Your task to perform on an android device: Open calendar and show me the first week of next month Image 0: 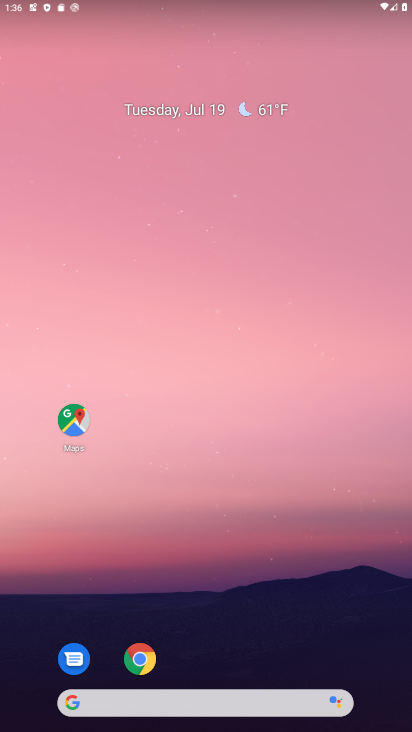
Step 0: drag from (257, 626) to (203, 158)
Your task to perform on an android device: Open calendar and show me the first week of next month Image 1: 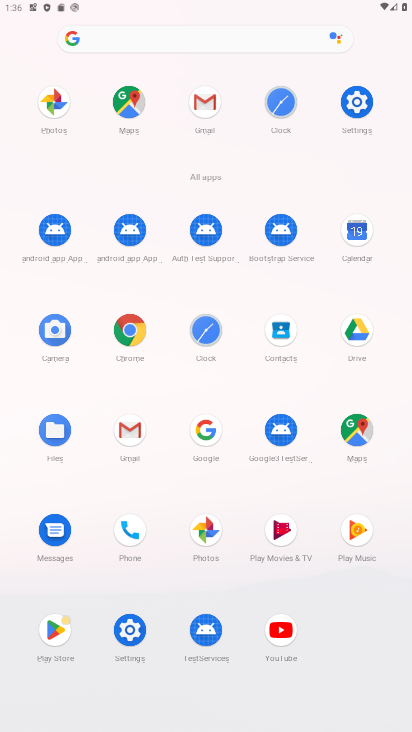
Step 1: click (350, 238)
Your task to perform on an android device: Open calendar and show me the first week of next month Image 2: 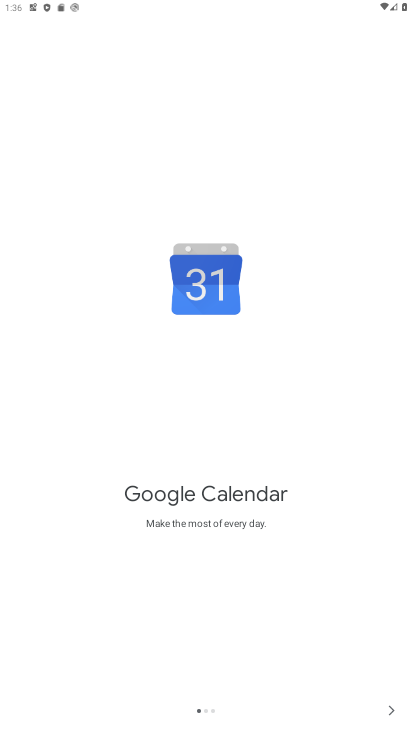
Step 2: click (389, 711)
Your task to perform on an android device: Open calendar and show me the first week of next month Image 3: 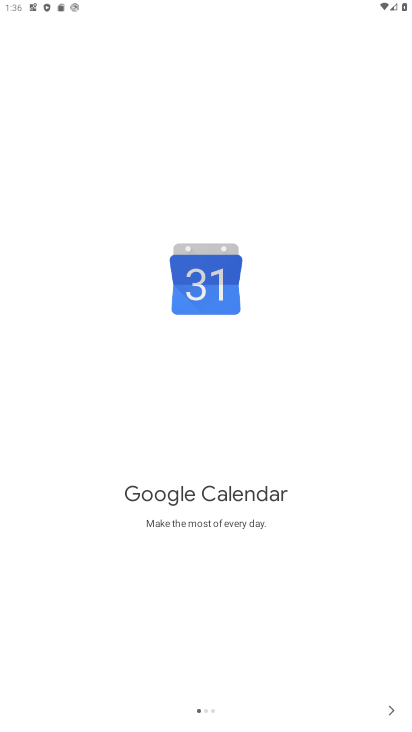
Step 3: click (389, 711)
Your task to perform on an android device: Open calendar and show me the first week of next month Image 4: 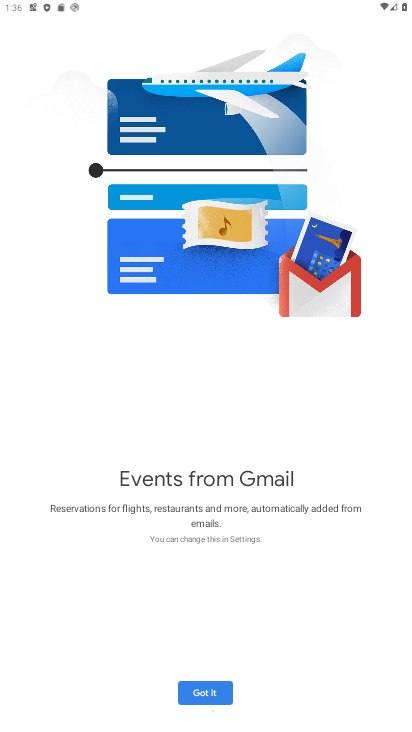
Step 4: click (389, 711)
Your task to perform on an android device: Open calendar and show me the first week of next month Image 5: 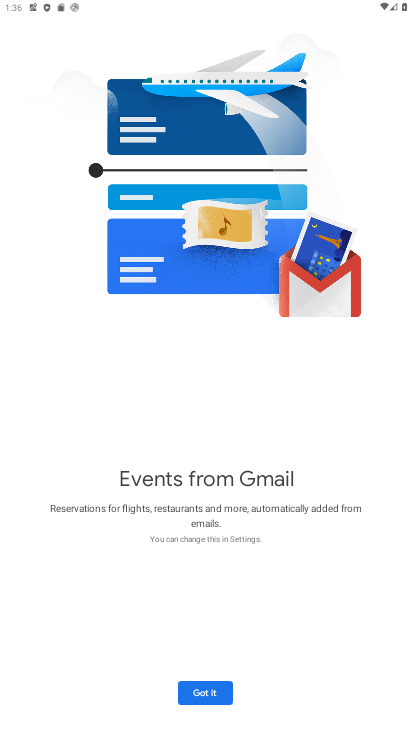
Step 5: click (204, 690)
Your task to perform on an android device: Open calendar and show me the first week of next month Image 6: 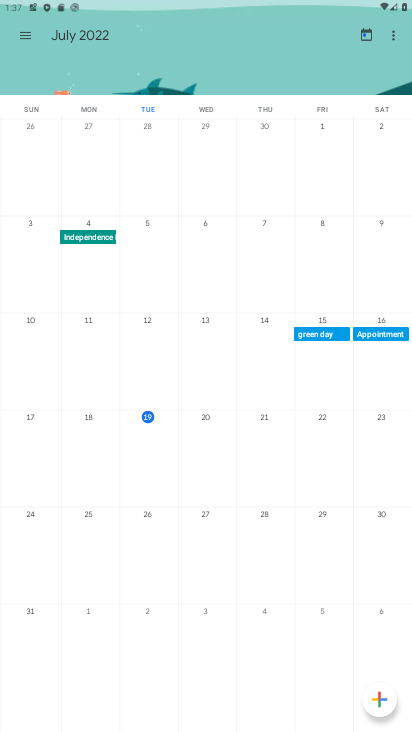
Step 6: click (24, 38)
Your task to perform on an android device: Open calendar and show me the first week of next month Image 7: 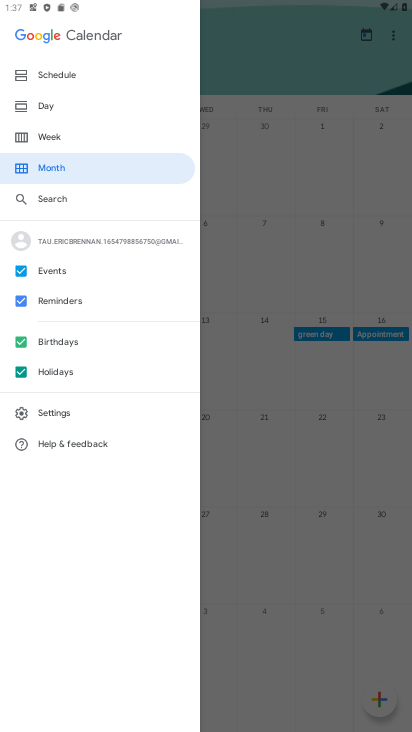
Step 7: click (60, 136)
Your task to perform on an android device: Open calendar and show me the first week of next month Image 8: 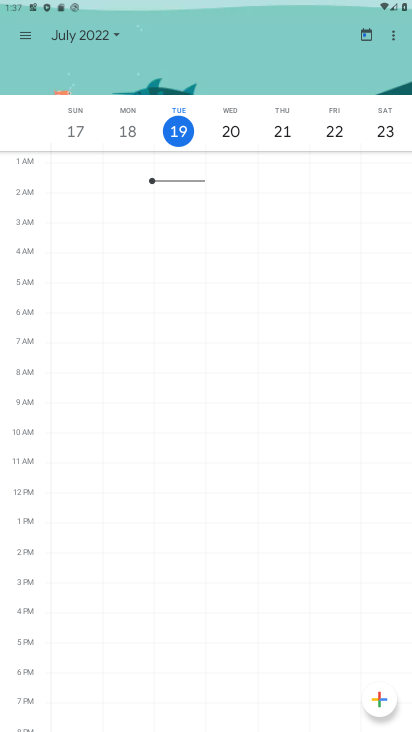
Step 8: click (106, 36)
Your task to perform on an android device: Open calendar and show me the first week of next month Image 9: 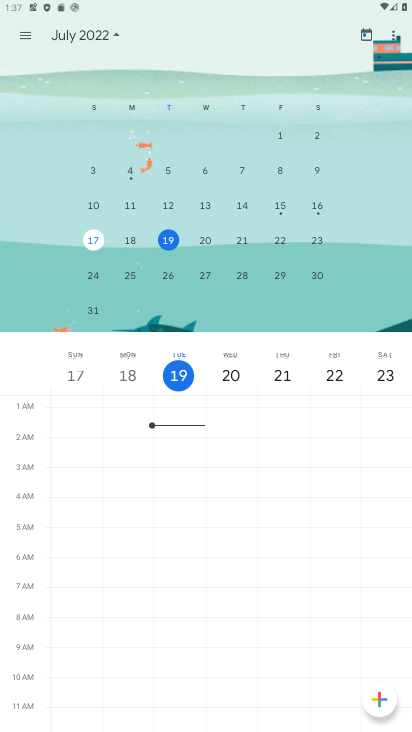
Step 9: drag from (277, 225) to (132, 123)
Your task to perform on an android device: Open calendar and show me the first week of next month Image 10: 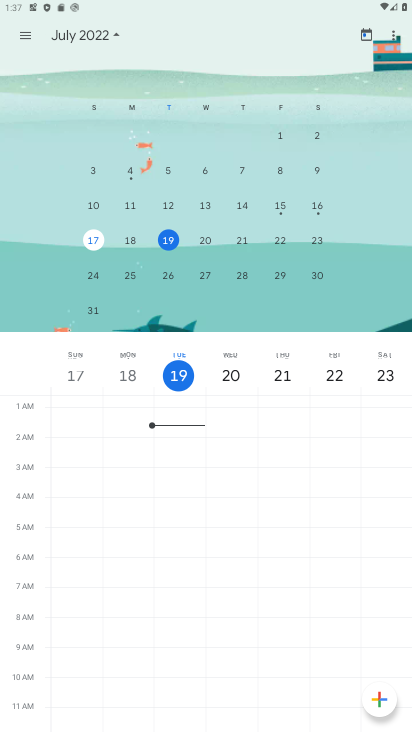
Step 10: click (131, 169)
Your task to perform on an android device: Open calendar and show me the first week of next month Image 11: 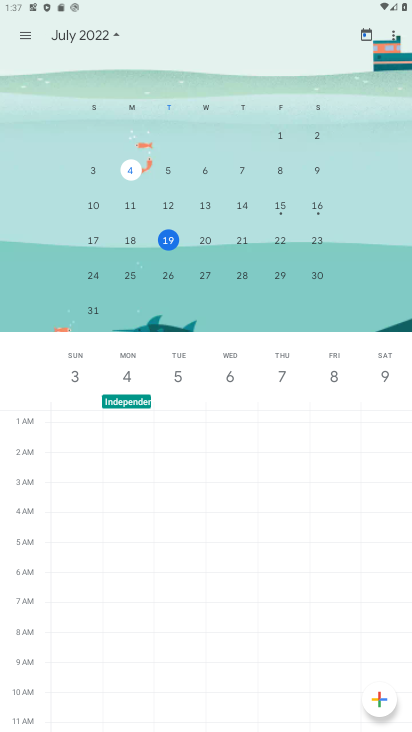
Step 11: task complete